Your task to perform on an android device: change the clock display to analog Image 0: 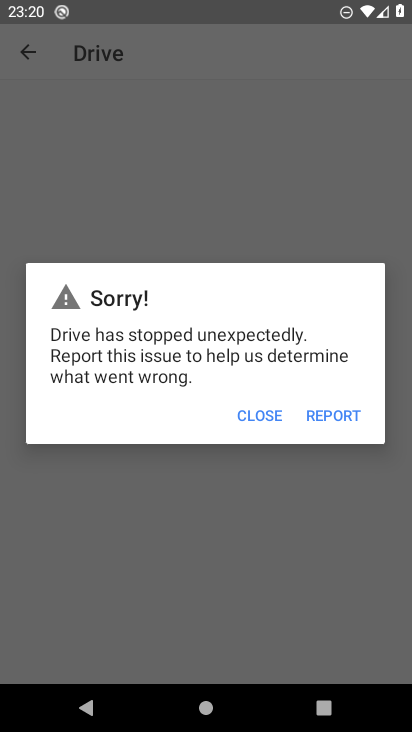
Step 0: press home button
Your task to perform on an android device: change the clock display to analog Image 1: 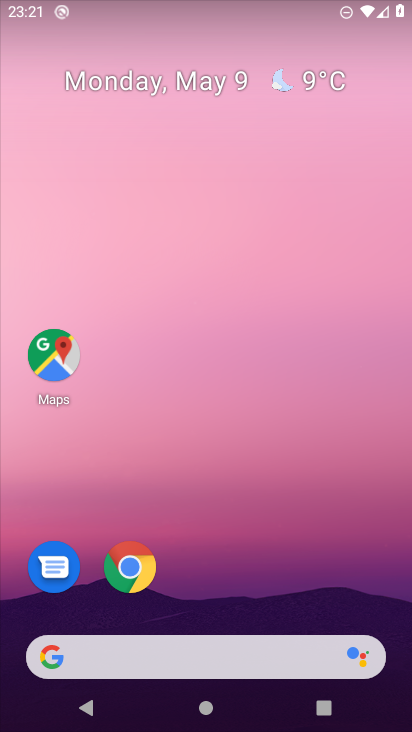
Step 1: drag from (229, 620) to (242, 83)
Your task to perform on an android device: change the clock display to analog Image 2: 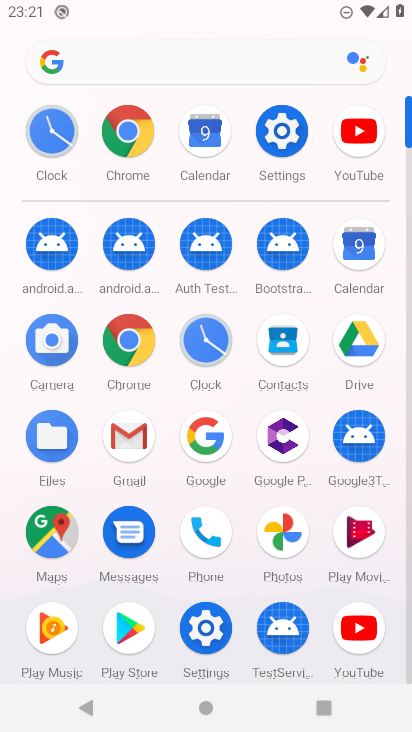
Step 2: click (203, 331)
Your task to perform on an android device: change the clock display to analog Image 3: 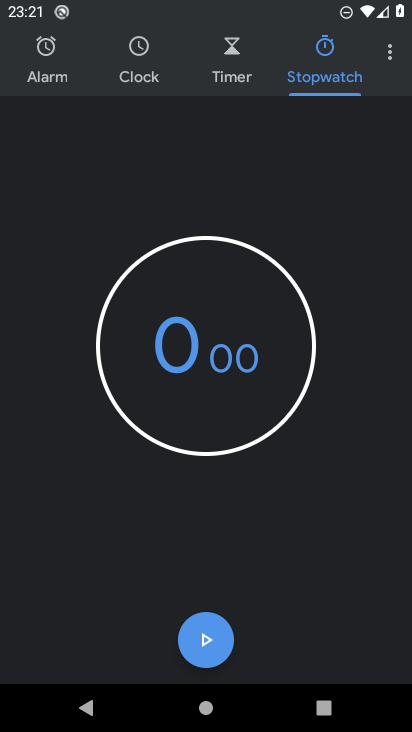
Step 3: click (389, 56)
Your task to perform on an android device: change the clock display to analog Image 4: 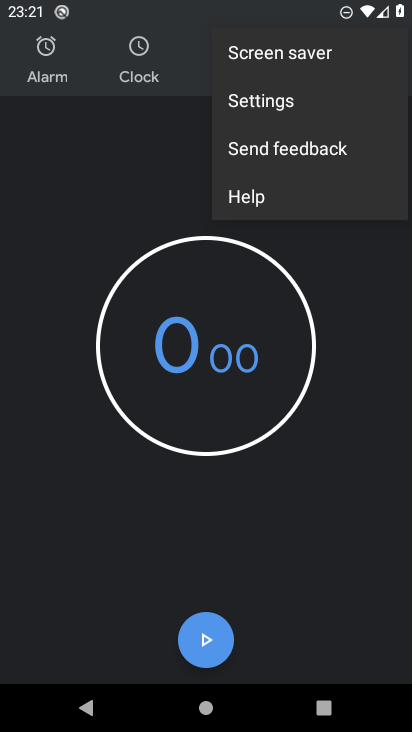
Step 4: click (299, 99)
Your task to perform on an android device: change the clock display to analog Image 5: 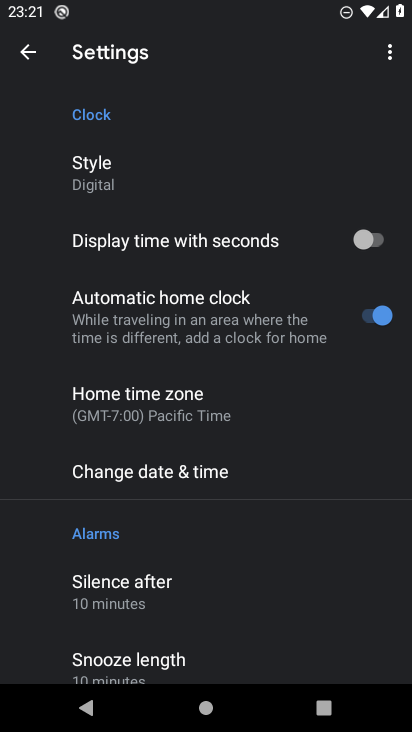
Step 5: click (139, 173)
Your task to perform on an android device: change the clock display to analog Image 6: 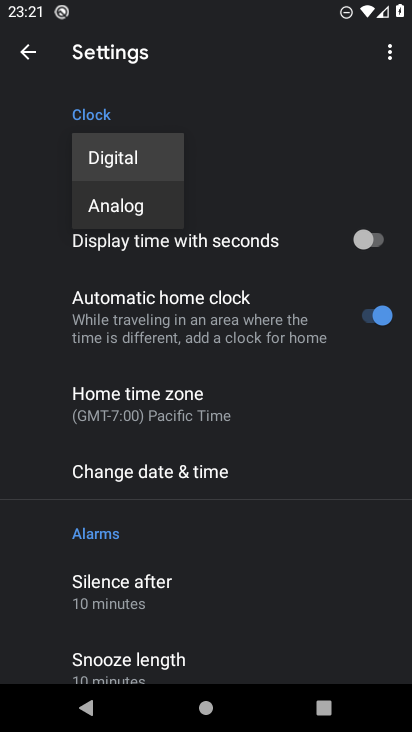
Step 6: click (155, 205)
Your task to perform on an android device: change the clock display to analog Image 7: 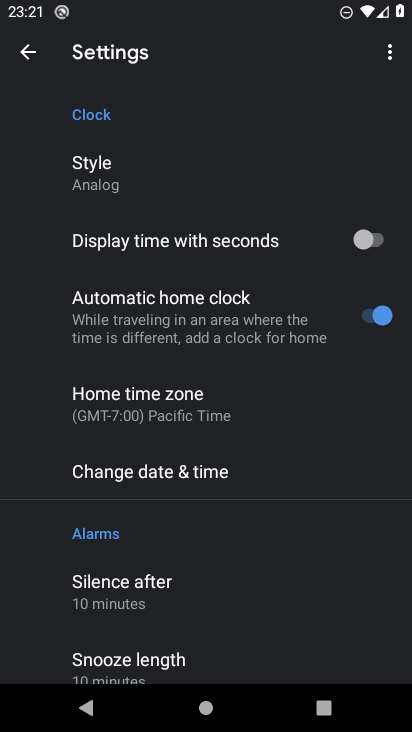
Step 7: task complete